Your task to perform on an android device: Go to network settings Image 0: 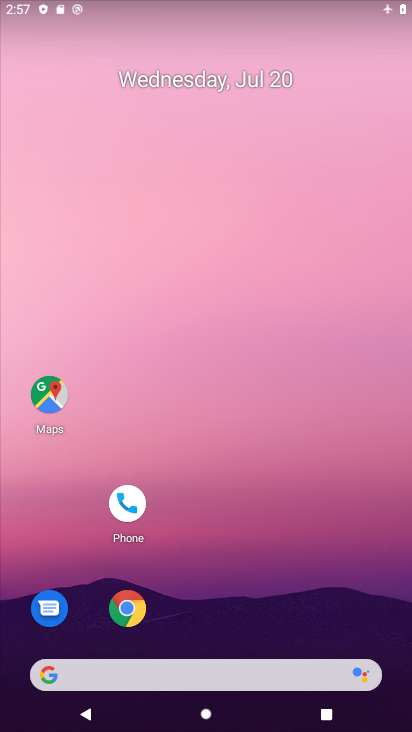
Step 0: drag from (286, 95) to (272, 0)
Your task to perform on an android device: Go to network settings Image 1: 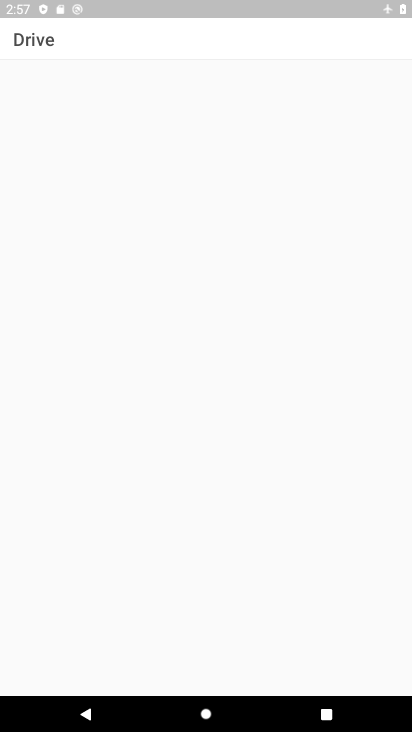
Step 1: press home button
Your task to perform on an android device: Go to network settings Image 2: 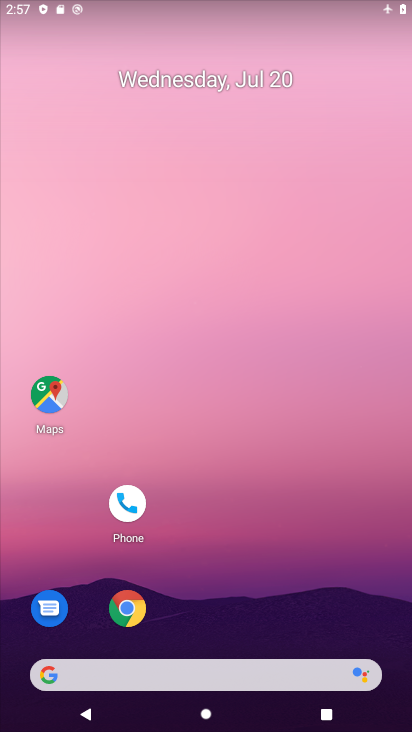
Step 2: drag from (315, 595) to (280, 93)
Your task to perform on an android device: Go to network settings Image 3: 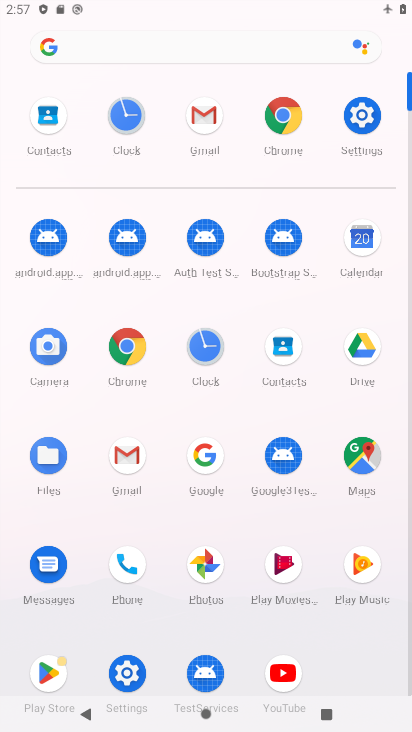
Step 3: click (354, 115)
Your task to perform on an android device: Go to network settings Image 4: 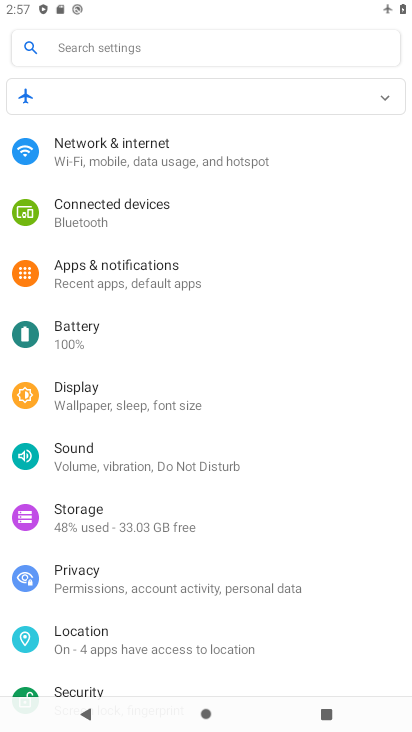
Step 4: click (167, 166)
Your task to perform on an android device: Go to network settings Image 5: 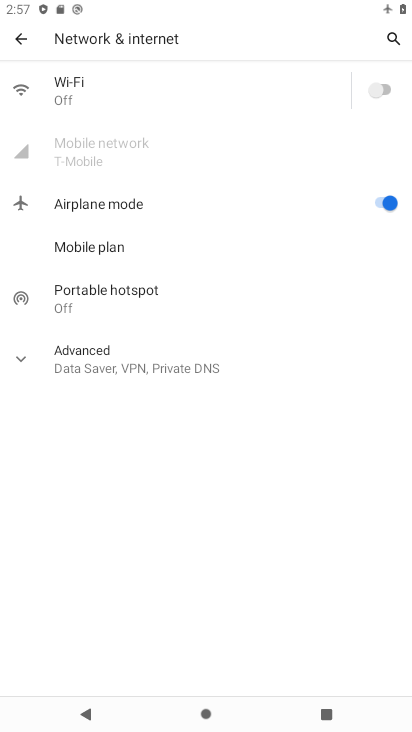
Step 5: task complete